Your task to perform on an android device: Open network settings Image 0: 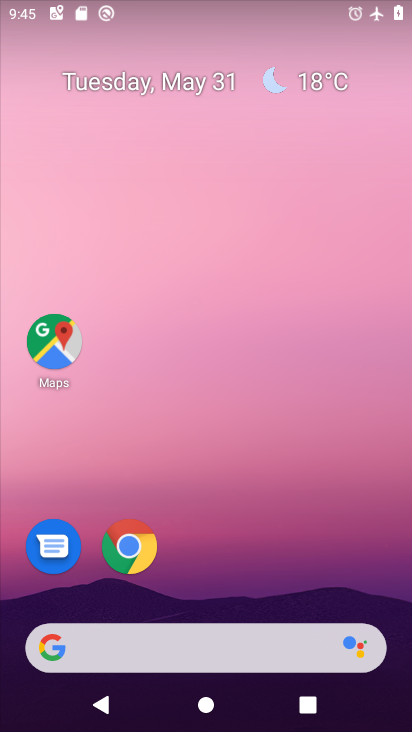
Step 0: drag from (209, 566) to (247, 161)
Your task to perform on an android device: Open network settings Image 1: 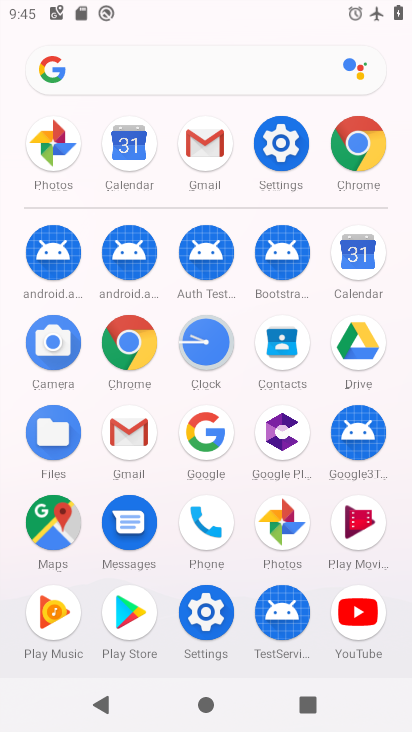
Step 1: click (291, 154)
Your task to perform on an android device: Open network settings Image 2: 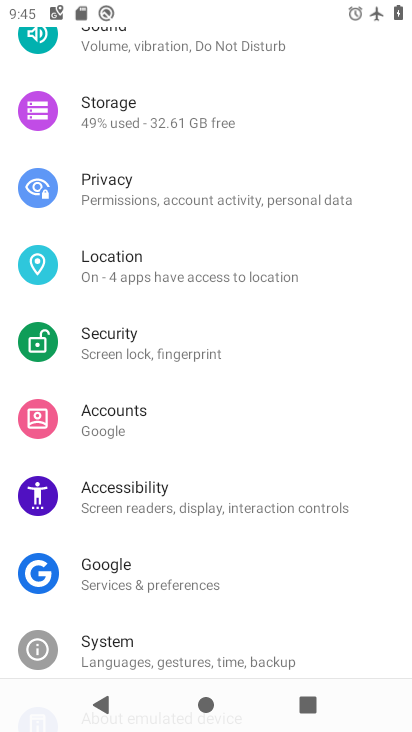
Step 2: drag from (214, 151) to (211, 712)
Your task to perform on an android device: Open network settings Image 3: 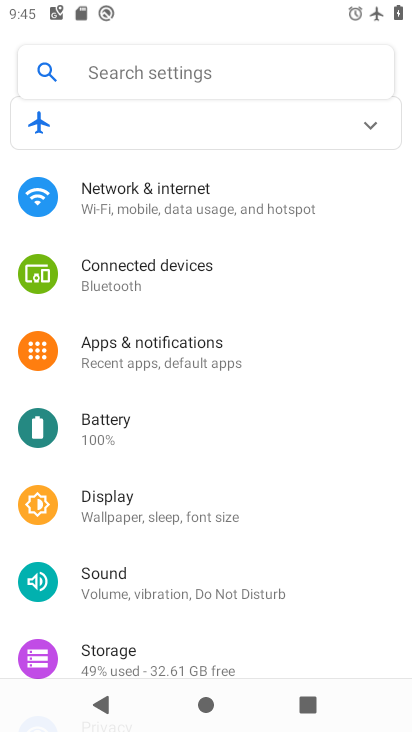
Step 3: click (194, 193)
Your task to perform on an android device: Open network settings Image 4: 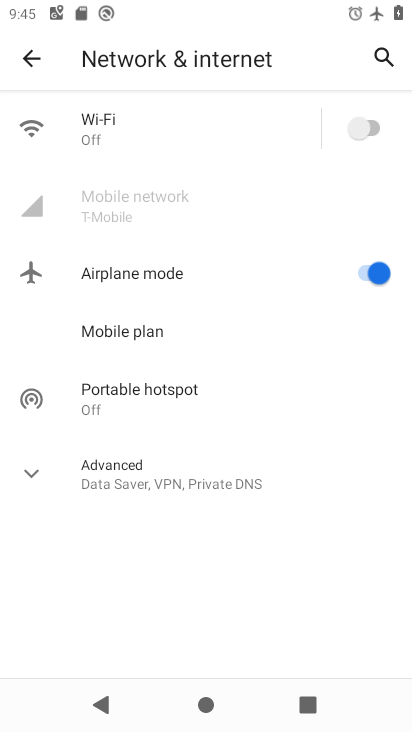
Step 4: task complete